Your task to perform on an android device: What is the recent news? Image 0: 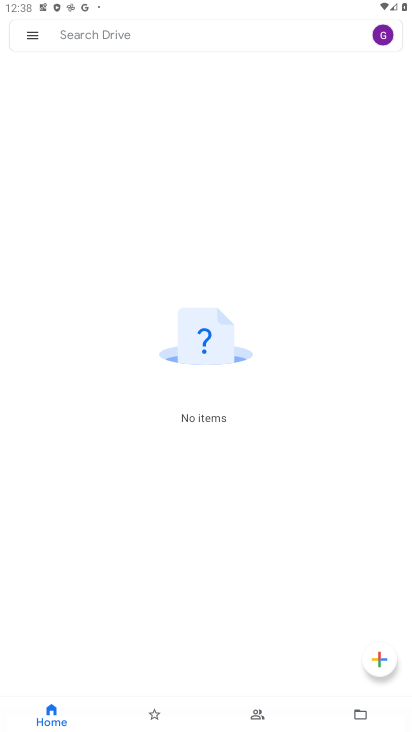
Step 0: press home button
Your task to perform on an android device: What is the recent news? Image 1: 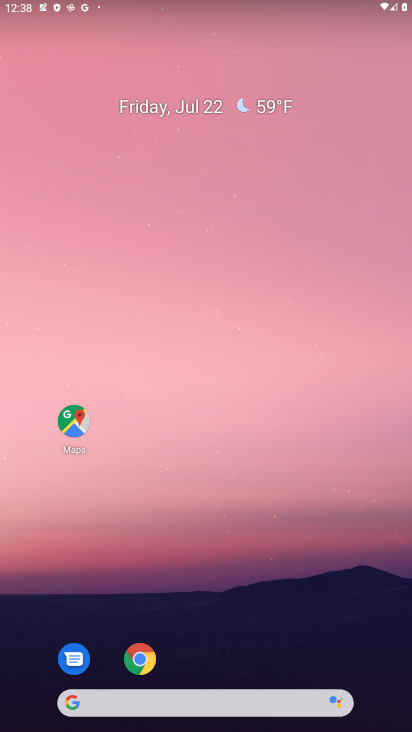
Step 1: drag from (283, 547) to (298, 128)
Your task to perform on an android device: What is the recent news? Image 2: 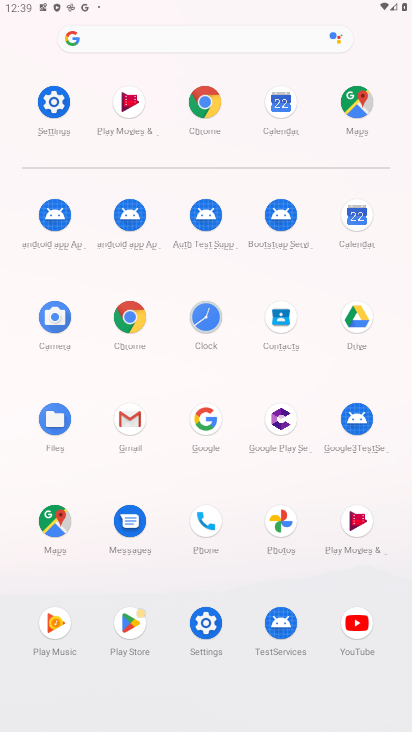
Step 2: click (126, 324)
Your task to perform on an android device: What is the recent news? Image 3: 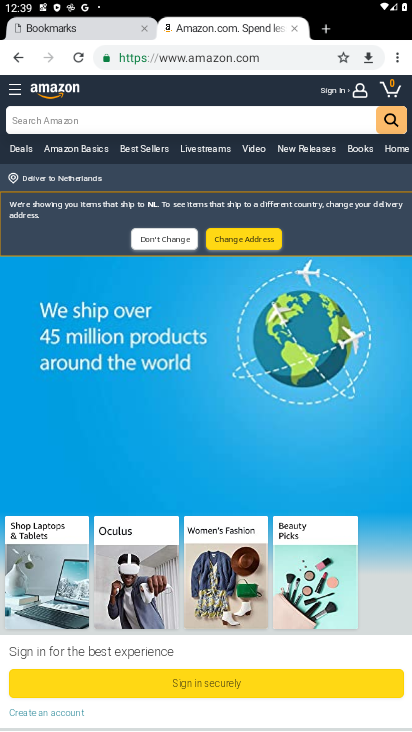
Step 3: click (19, 54)
Your task to perform on an android device: What is the recent news? Image 4: 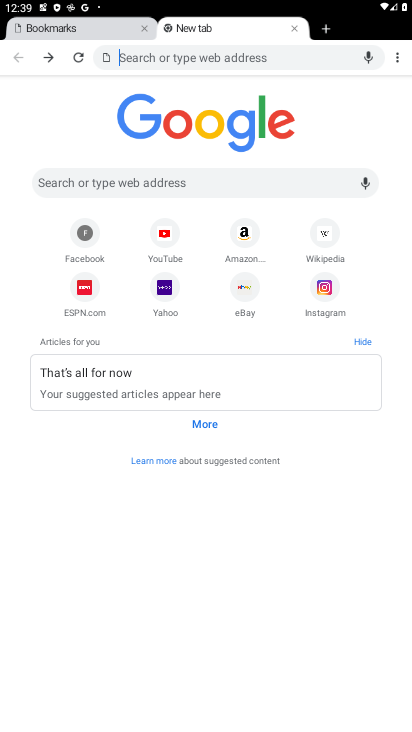
Step 4: click (201, 413)
Your task to perform on an android device: What is the recent news? Image 5: 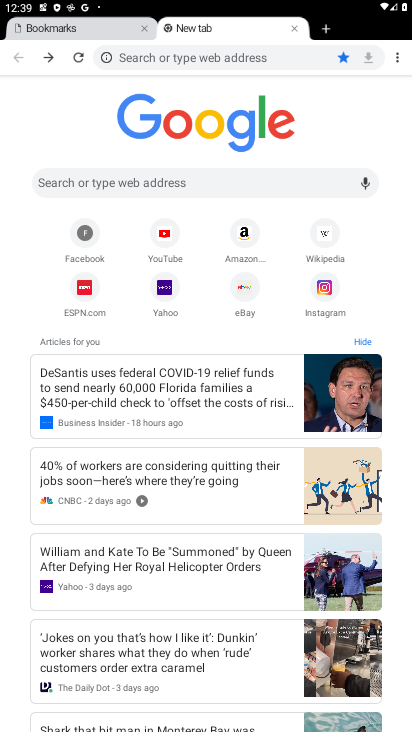
Step 5: task complete